Your task to perform on an android device: open wifi settings Image 0: 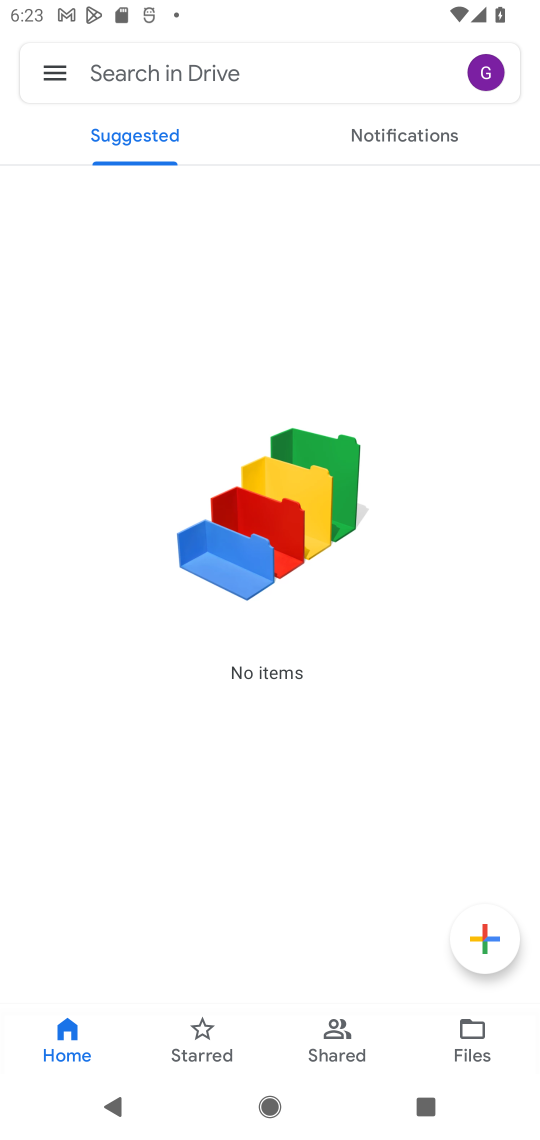
Step 0: task complete